Your task to perform on an android device: Go to Google maps Image 0: 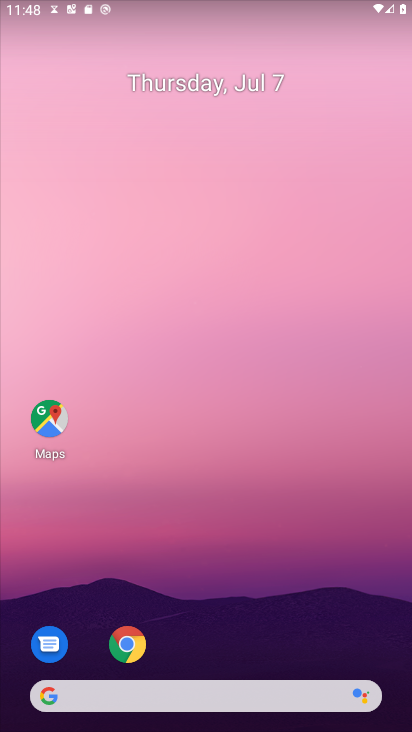
Step 0: press home button
Your task to perform on an android device: Go to Google maps Image 1: 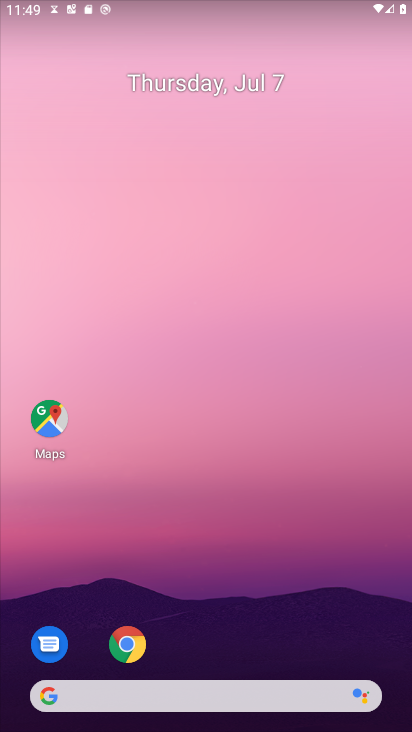
Step 1: click (45, 427)
Your task to perform on an android device: Go to Google maps Image 2: 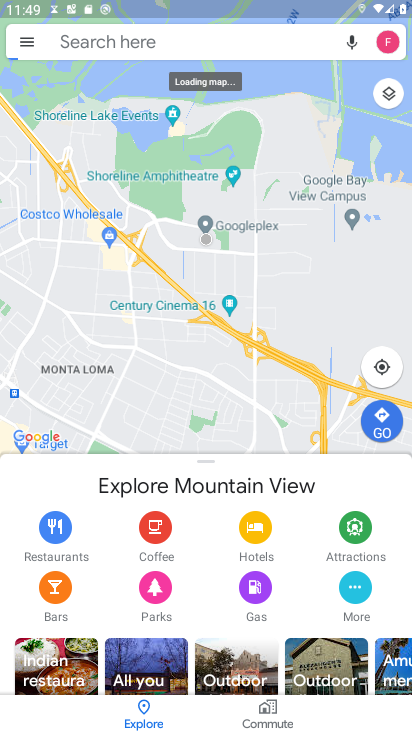
Step 2: task complete